Your task to perform on an android device: Open Google Chrome and open the bookmarks view Image 0: 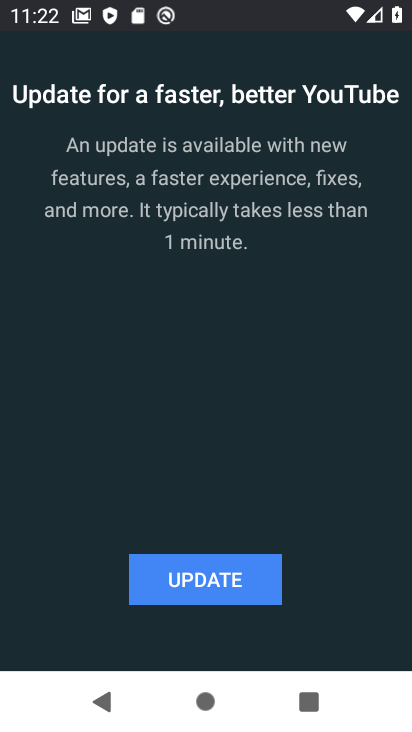
Step 0: press home button
Your task to perform on an android device: Open Google Chrome and open the bookmarks view Image 1: 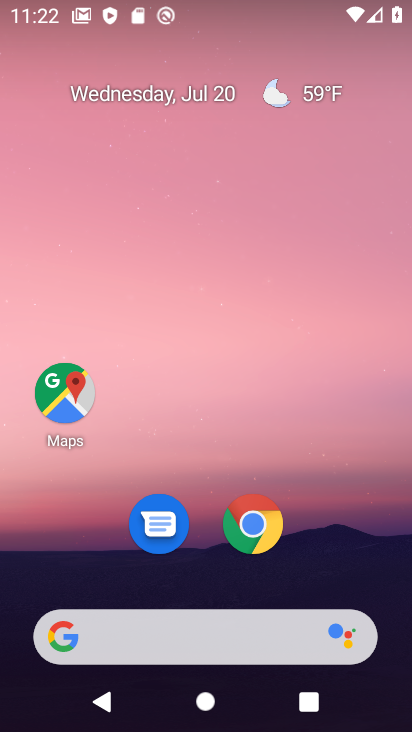
Step 1: click (248, 525)
Your task to perform on an android device: Open Google Chrome and open the bookmarks view Image 2: 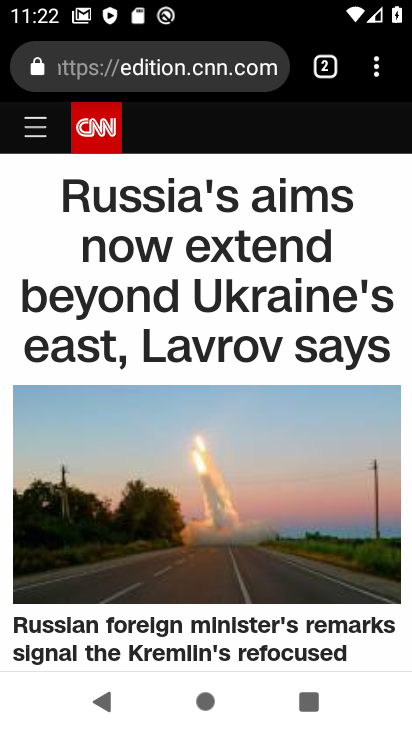
Step 2: task complete